Your task to perform on an android device: toggle data saver in the chrome app Image 0: 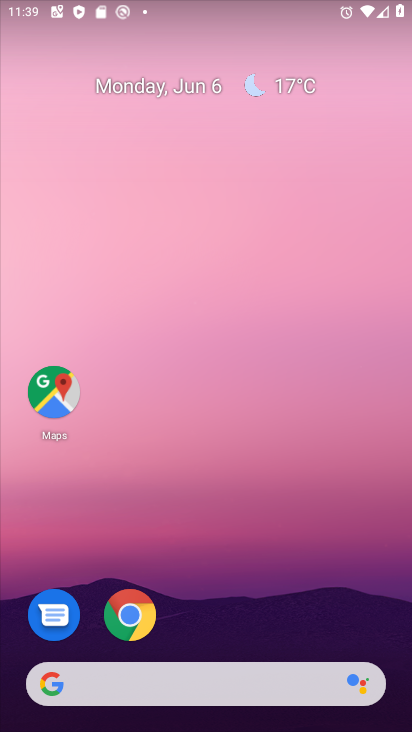
Step 0: click (140, 608)
Your task to perform on an android device: toggle data saver in the chrome app Image 1: 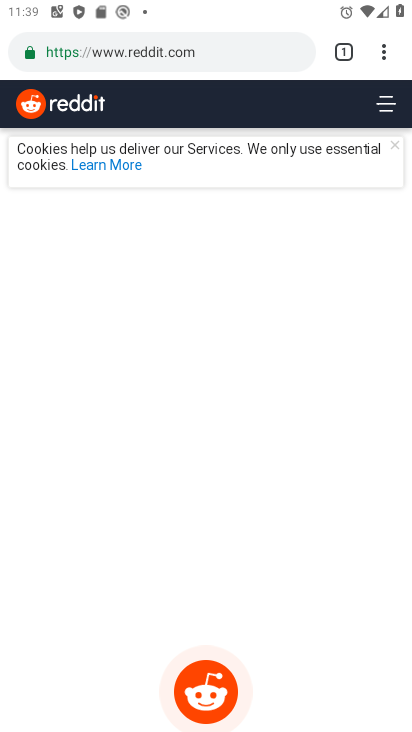
Step 1: click (385, 50)
Your task to perform on an android device: toggle data saver in the chrome app Image 2: 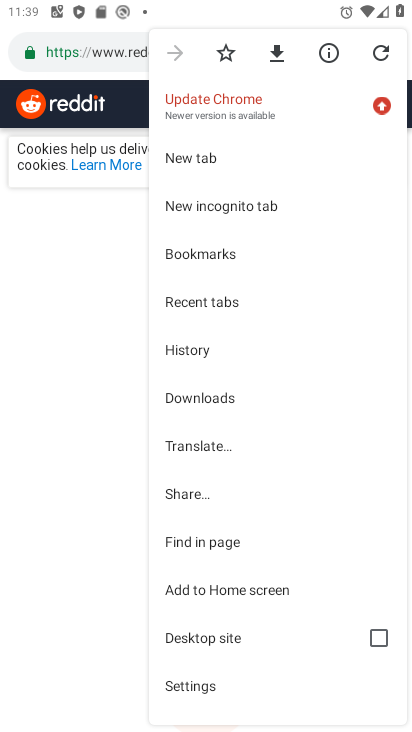
Step 2: click (227, 682)
Your task to perform on an android device: toggle data saver in the chrome app Image 3: 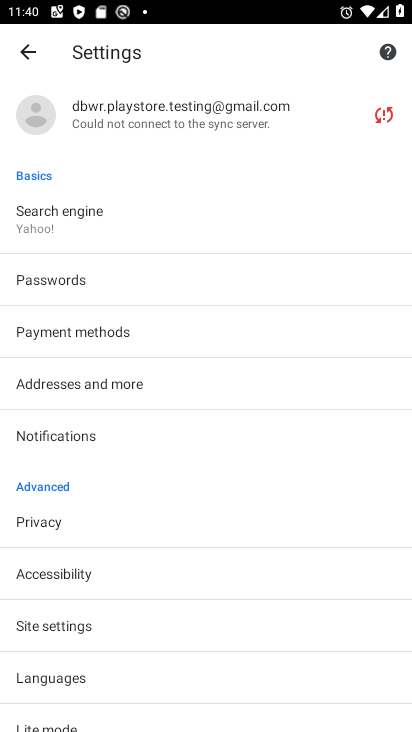
Step 3: click (113, 717)
Your task to perform on an android device: toggle data saver in the chrome app Image 4: 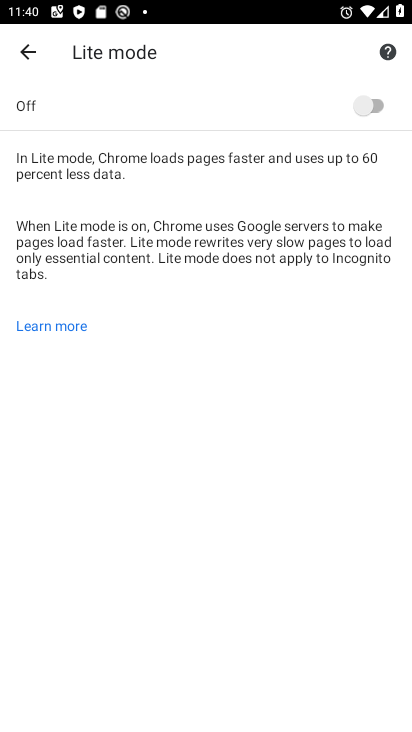
Step 4: click (375, 106)
Your task to perform on an android device: toggle data saver in the chrome app Image 5: 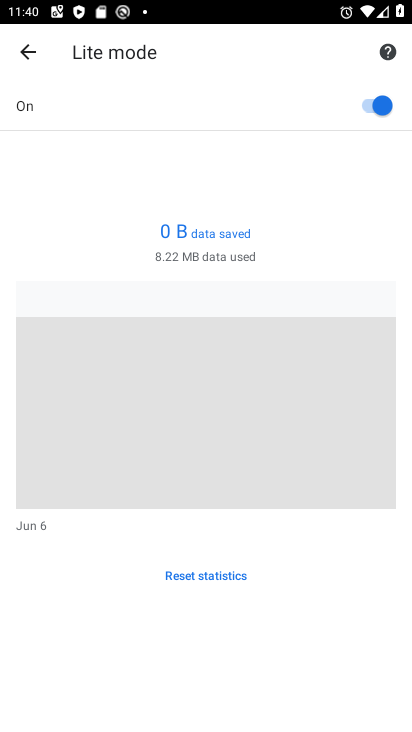
Step 5: task complete